Your task to perform on an android device: turn notification dots off Image 0: 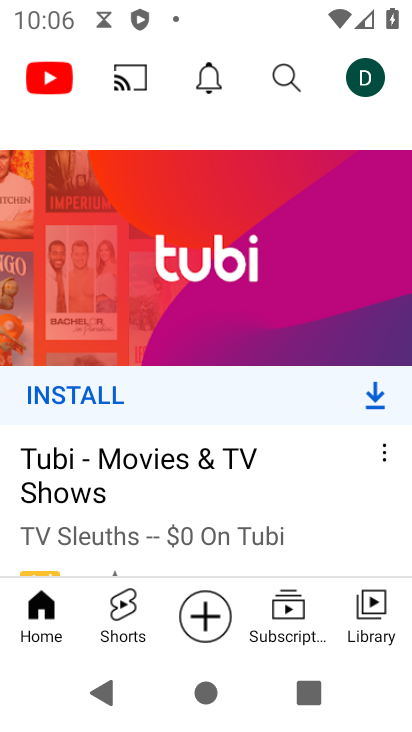
Step 0: press home button
Your task to perform on an android device: turn notification dots off Image 1: 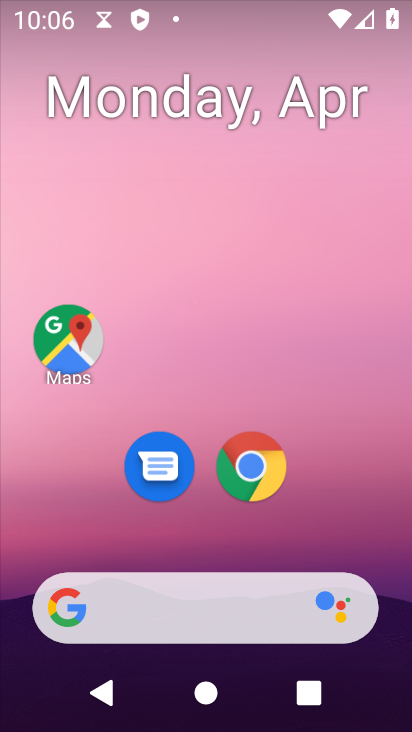
Step 1: drag from (206, 539) to (258, 51)
Your task to perform on an android device: turn notification dots off Image 2: 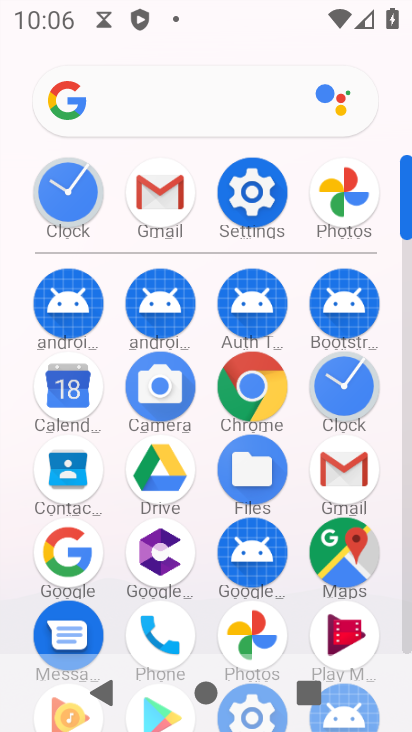
Step 2: click (266, 226)
Your task to perform on an android device: turn notification dots off Image 3: 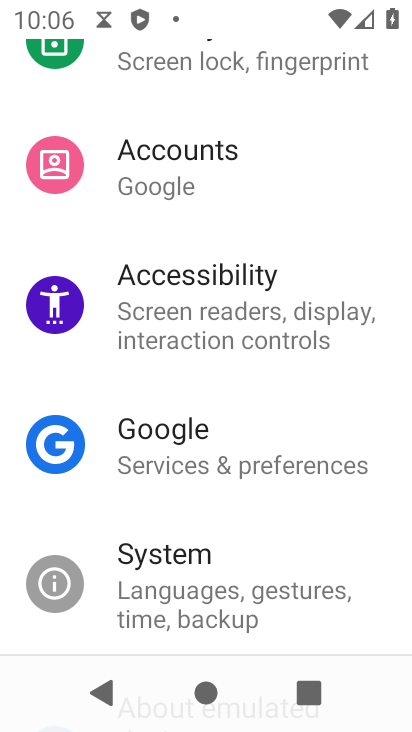
Step 3: drag from (236, 199) to (267, 314)
Your task to perform on an android device: turn notification dots off Image 4: 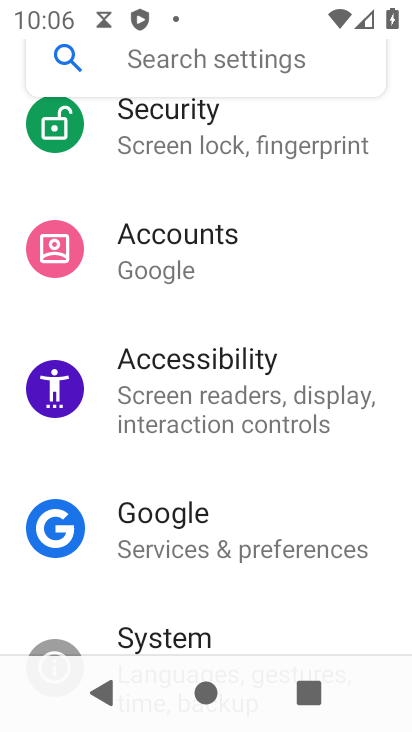
Step 4: drag from (269, 203) to (283, 321)
Your task to perform on an android device: turn notification dots off Image 5: 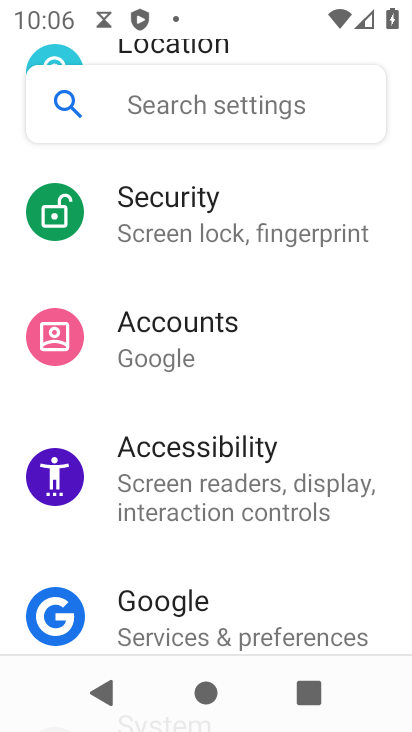
Step 5: drag from (243, 201) to (266, 323)
Your task to perform on an android device: turn notification dots off Image 6: 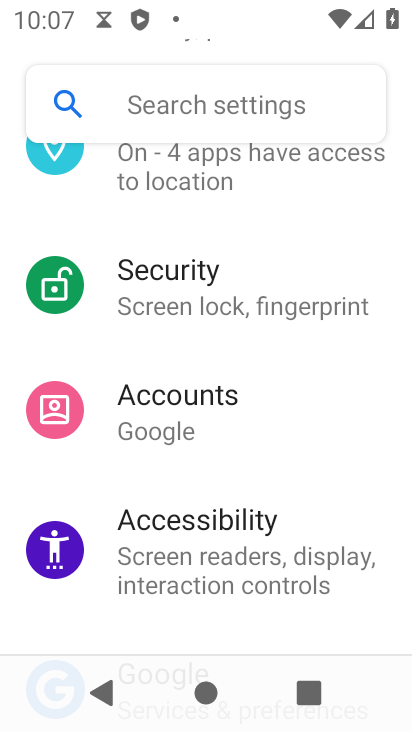
Step 6: drag from (230, 238) to (267, 403)
Your task to perform on an android device: turn notification dots off Image 7: 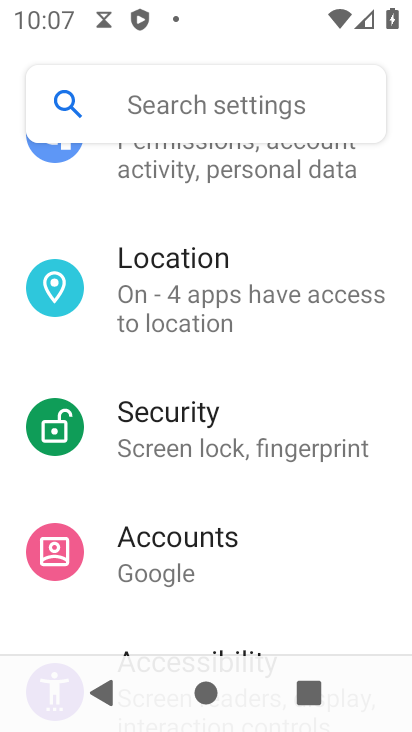
Step 7: drag from (253, 344) to (299, 443)
Your task to perform on an android device: turn notification dots off Image 8: 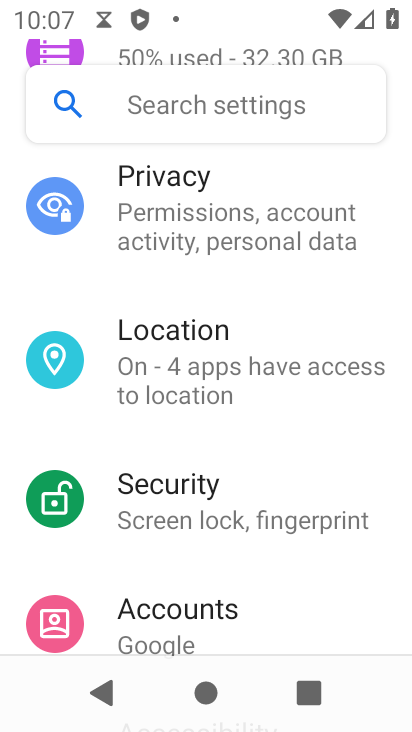
Step 8: drag from (282, 328) to (300, 417)
Your task to perform on an android device: turn notification dots off Image 9: 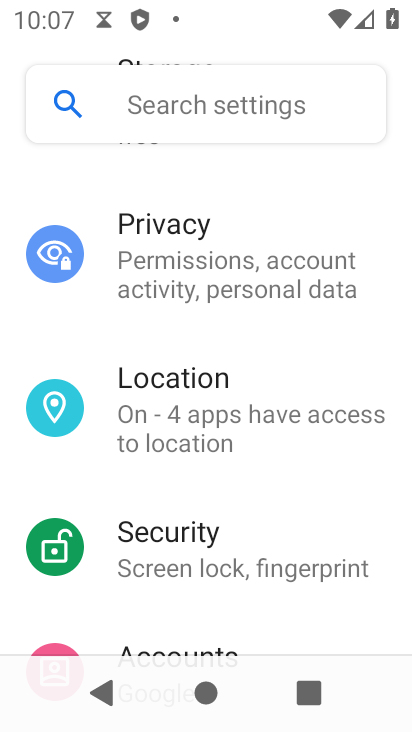
Step 9: drag from (260, 240) to (269, 355)
Your task to perform on an android device: turn notification dots off Image 10: 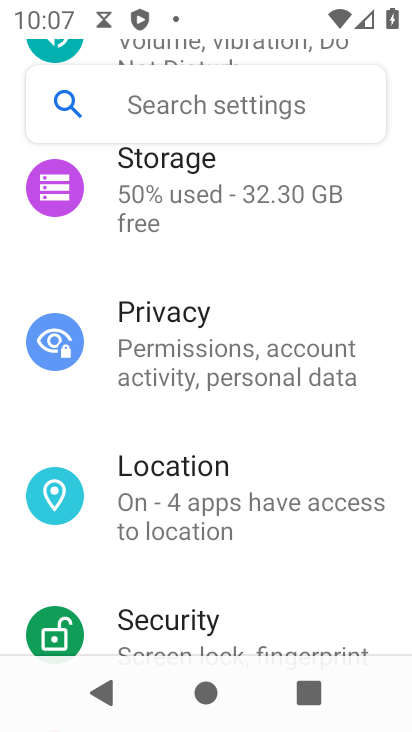
Step 10: drag from (245, 300) to (257, 397)
Your task to perform on an android device: turn notification dots off Image 11: 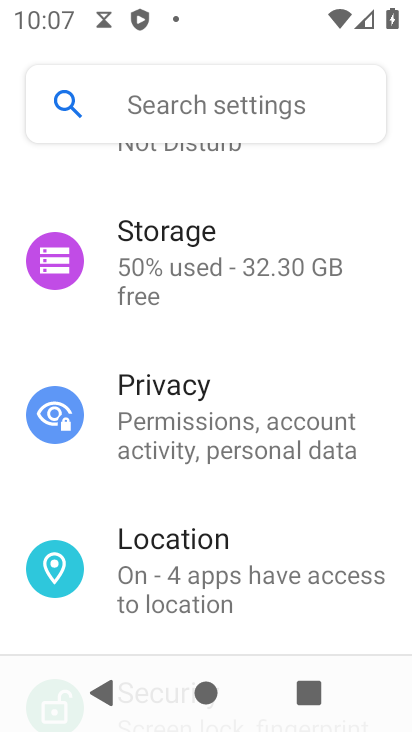
Step 11: drag from (275, 239) to (285, 348)
Your task to perform on an android device: turn notification dots off Image 12: 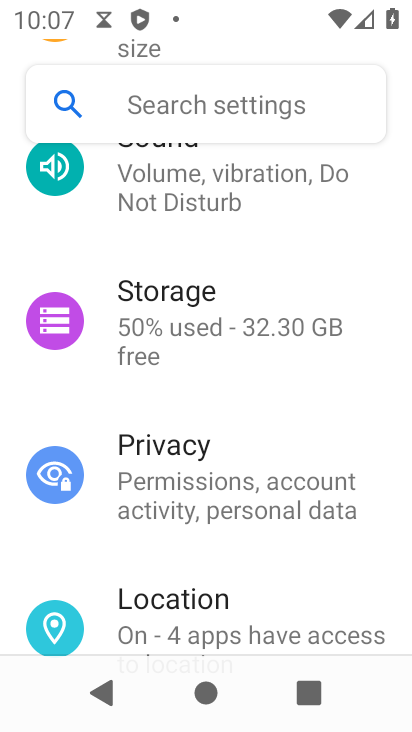
Step 12: drag from (258, 266) to (256, 385)
Your task to perform on an android device: turn notification dots off Image 13: 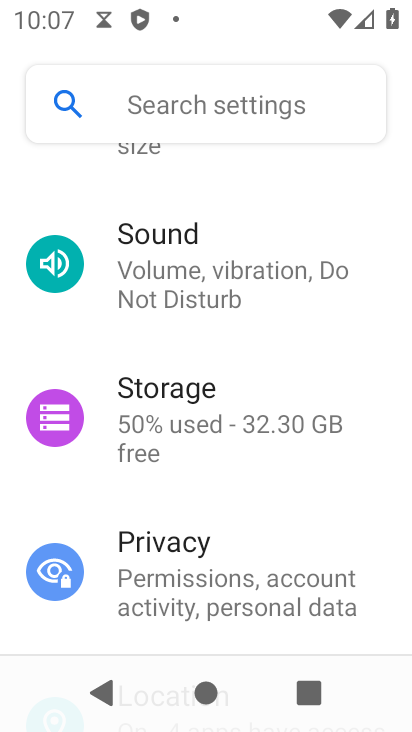
Step 13: drag from (253, 241) to (280, 364)
Your task to perform on an android device: turn notification dots off Image 14: 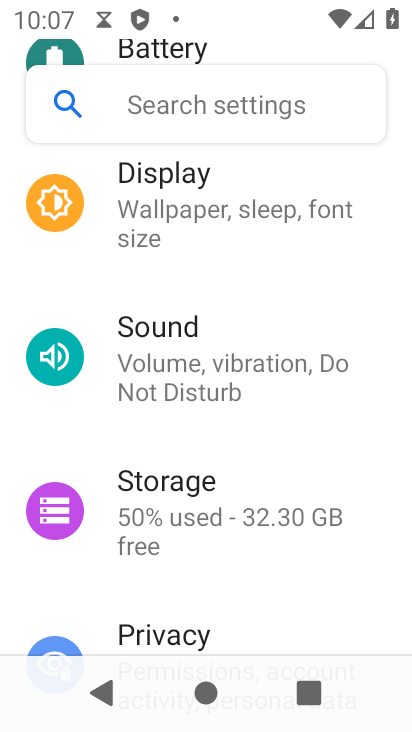
Step 14: drag from (248, 297) to (290, 385)
Your task to perform on an android device: turn notification dots off Image 15: 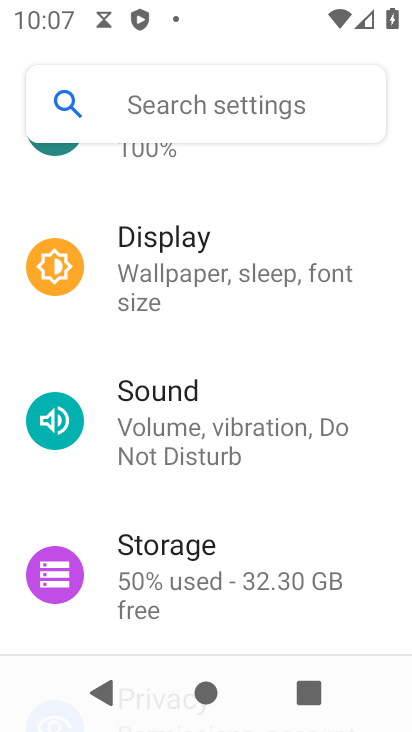
Step 15: drag from (216, 246) to (229, 325)
Your task to perform on an android device: turn notification dots off Image 16: 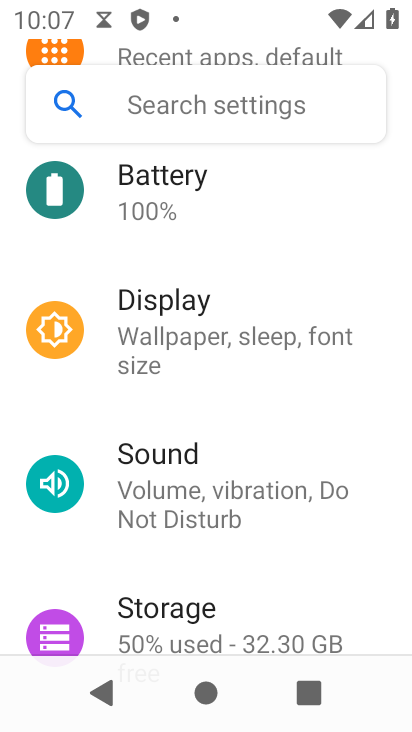
Step 16: drag from (217, 264) to (219, 335)
Your task to perform on an android device: turn notification dots off Image 17: 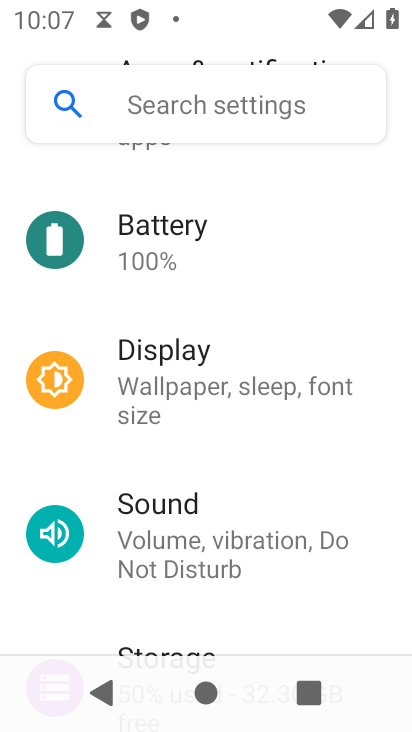
Step 17: drag from (222, 261) to (213, 332)
Your task to perform on an android device: turn notification dots off Image 18: 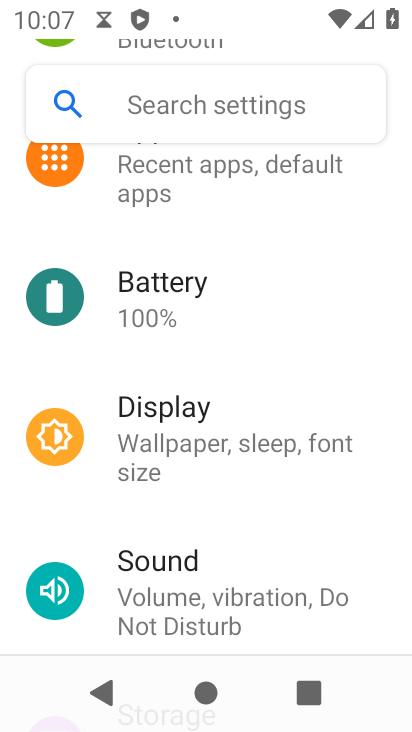
Step 18: drag from (218, 265) to (211, 387)
Your task to perform on an android device: turn notification dots off Image 19: 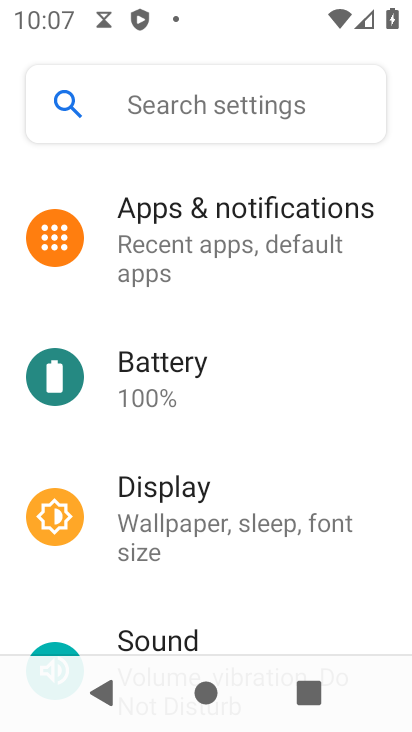
Step 19: click (212, 213)
Your task to perform on an android device: turn notification dots off Image 20: 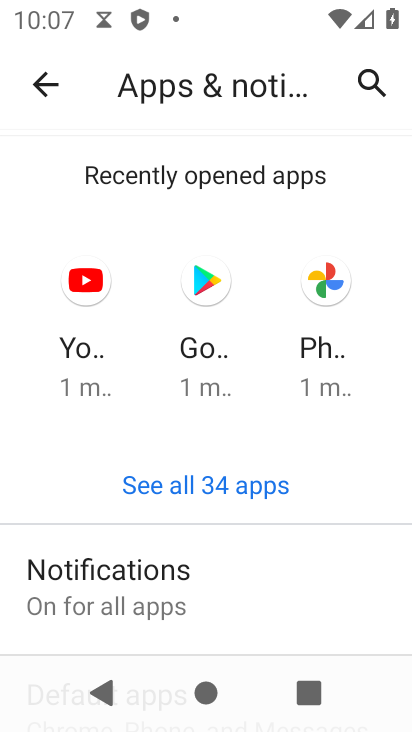
Step 20: click (139, 568)
Your task to perform on an android device: turn notification dots off Image 21: 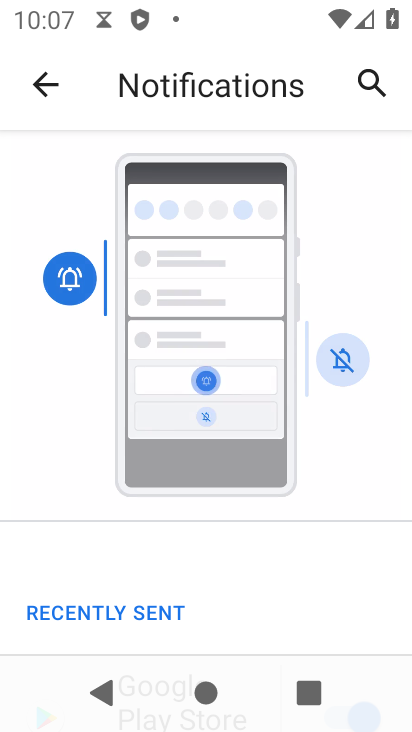
Step 21: drag from (178, 571) to (236, 352)
Your task to perform on an android device: turn notification dots off Image 22: 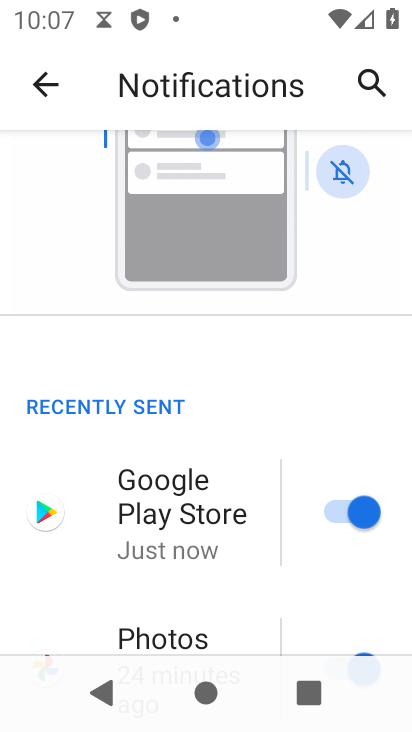
Step 22: drag from (200, 595) to (220, 379)
Your task to perform on an android device: turn notification dots off Image 23: 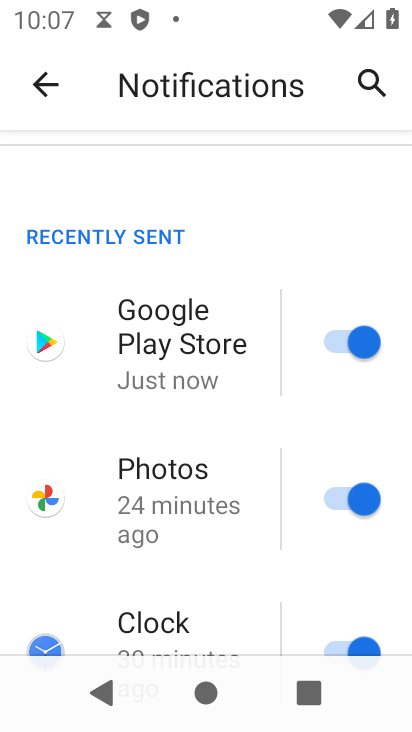
Step 23: drag from (182, 579) to (231, 334)
Your task to perform on an android device: turn notification dots off Image 24: 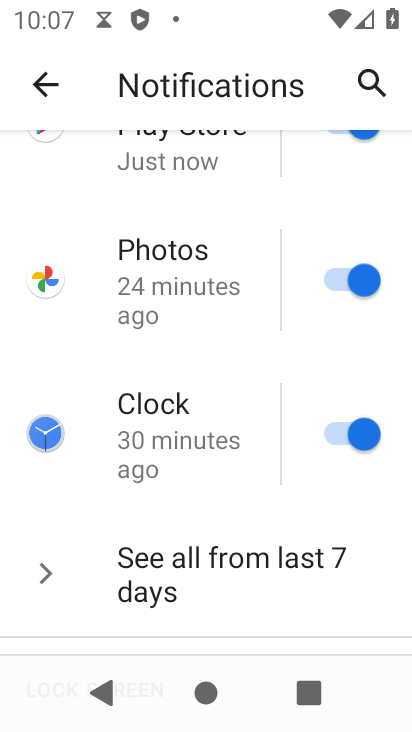
Step 24: drag from (185, 517) to (246, 307)
Your task to perform on an android device: turn notification dots off Image 25: 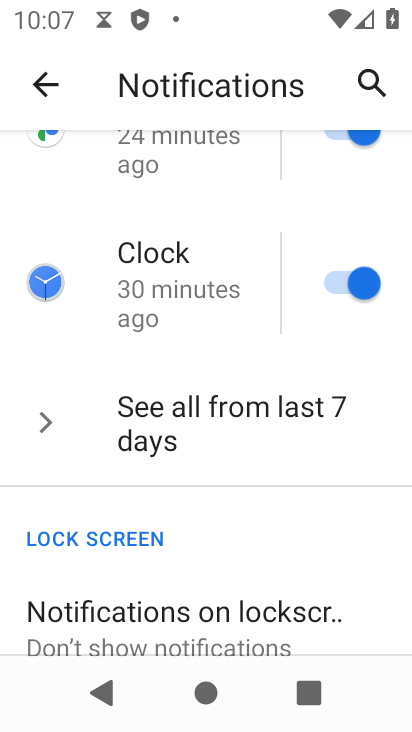
Step 25: drag from (176, 577) to (224, 363)
Your task to perform on an android device: turn notification dots off Image 26: 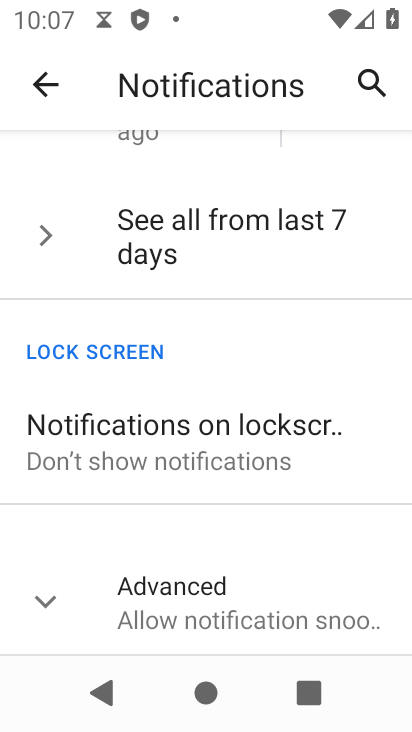
Step 26: click (205, 586)
Your task to perform on an android device: turn notification dots off Image 27: 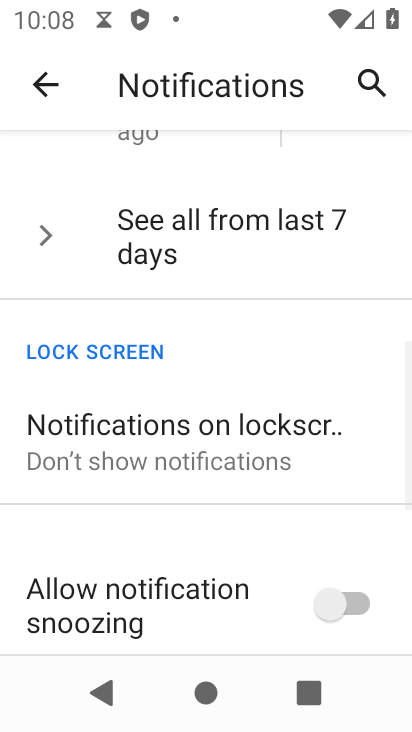
Step 27: task complete